Your task to perform on an android device: Is it going to rain today? Image 0: 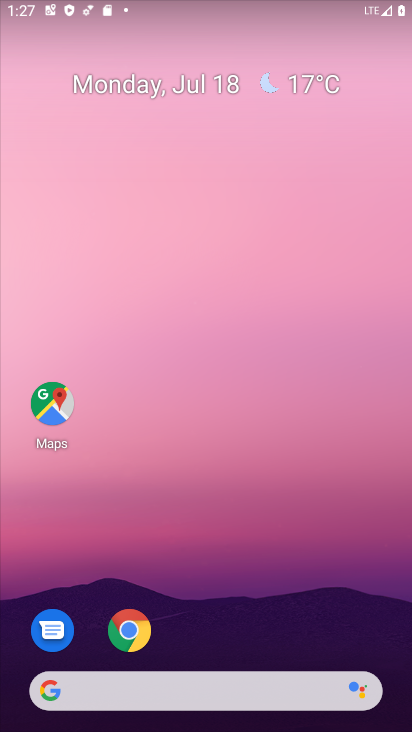
Step 0: drag from (271, 582) to (282, 142)
Your task to perform on an android device: Is it going to rain today? Image 1: 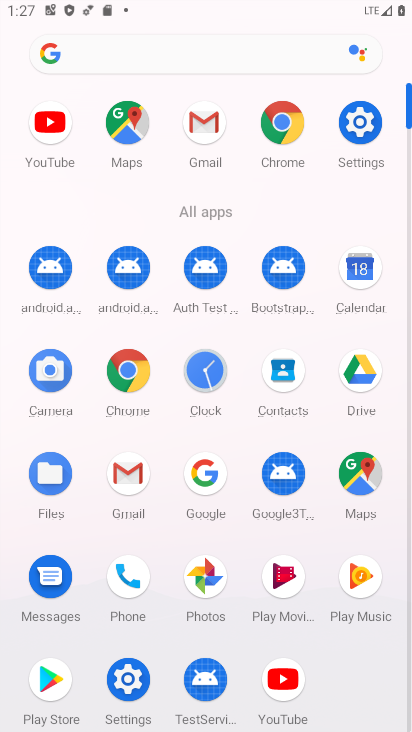
Step 1: click (210, 51)
Your task to perform on an android device: Is it going to rain today? Image 2: 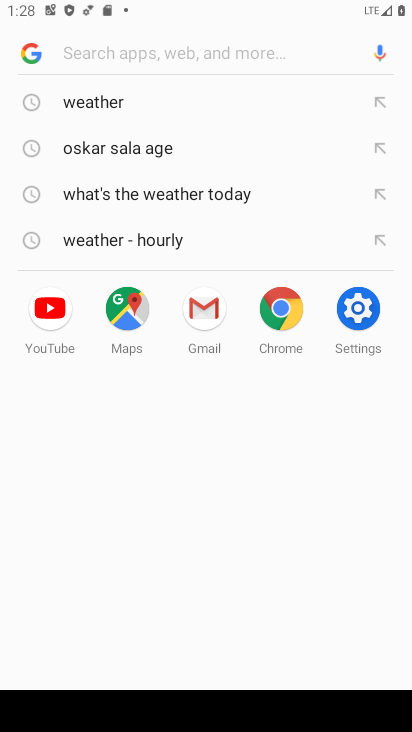
Step 2: click (106, 93)
Your task to perform on an android device: Is it going to rain today? Image 3: 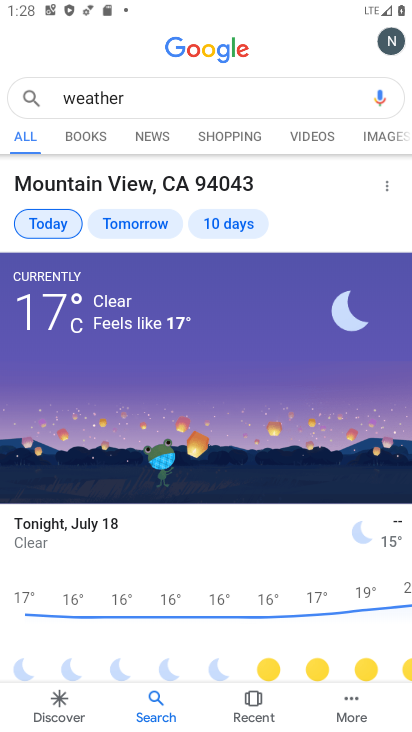
Step 3: click (64, 222)
Your task to perform on an android device: Is it going to rain today? Image 4: 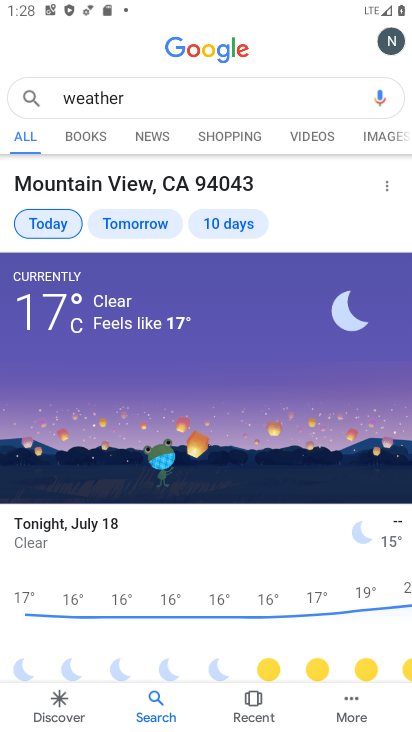
Step 4: click (43, 221)
Your task to perform on an android device: Is it going to rain today? Image 5: 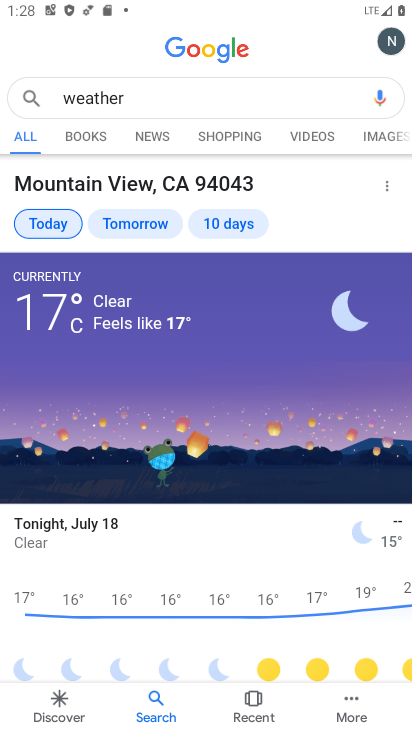
Step 5: task complete